Your task to perform on an android device: allow notifications from all sites in the chrome app Image 0: 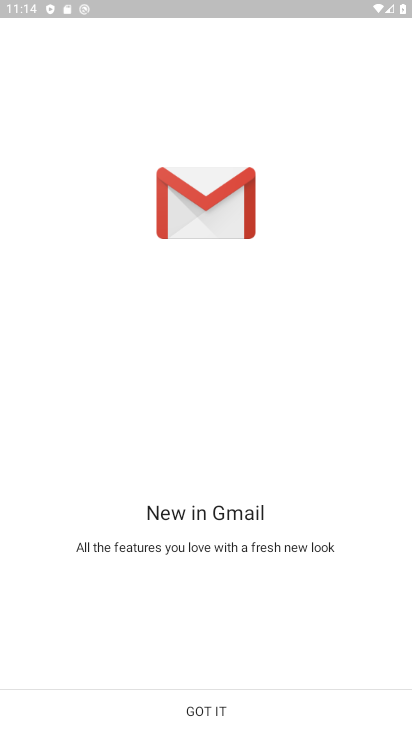
Step 0: click (230, 709)
Your task to perform on an android device: allow notifications from all sites in the chrome app Image 1: 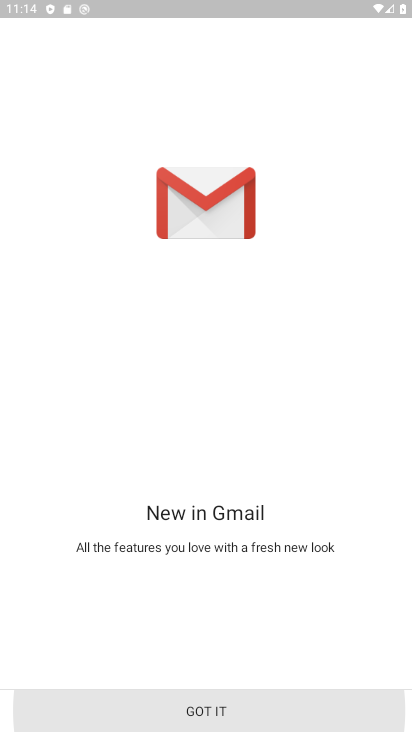
Step 1: click (230, 709)
Your task to perform on an android device: allow notifications from all sites in the chrome app Image 2: 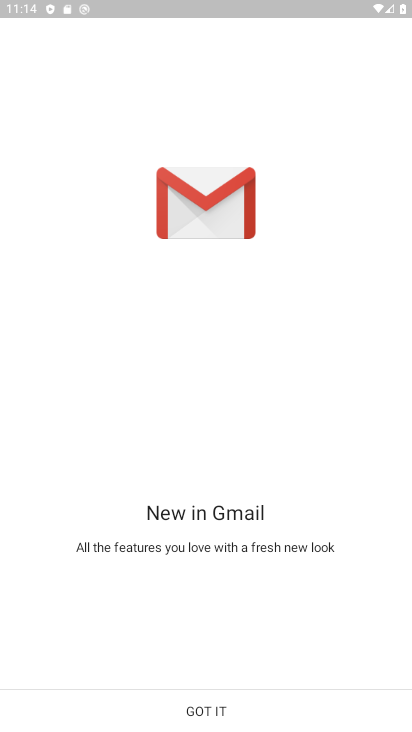
Step 2: click (242, 720)
Your task to perform on an android device: allow notifications from all sites in the chrome app Image 3: 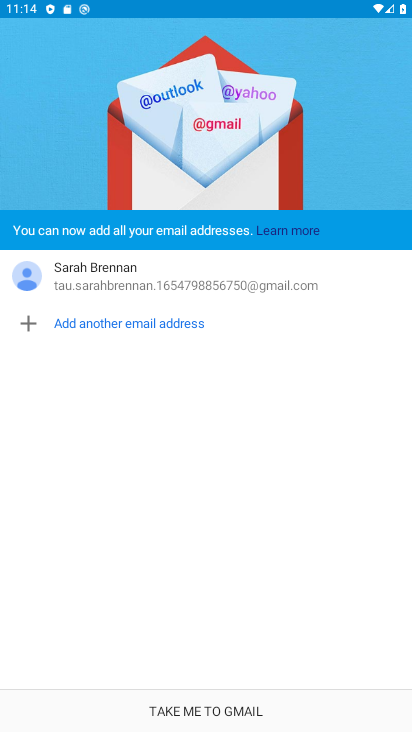
Step 3: click (194, 702)
Your task to perform on an android device: allow notifications from all sites in the chrome app Image 4: 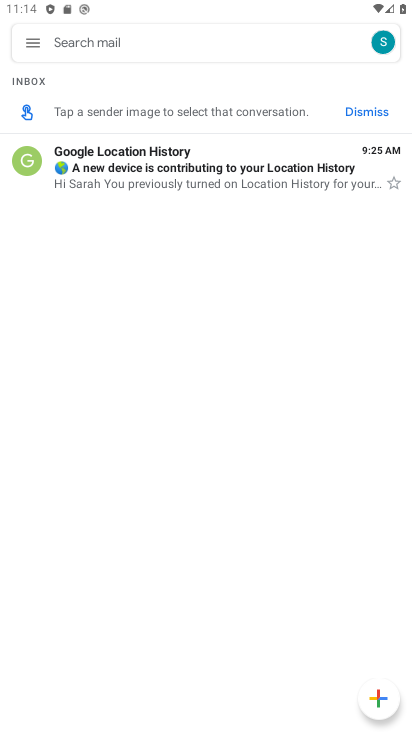
Step 4: press back button
Your task to perform on an android device: allow notifications from all sites in the chrome app Image 5: 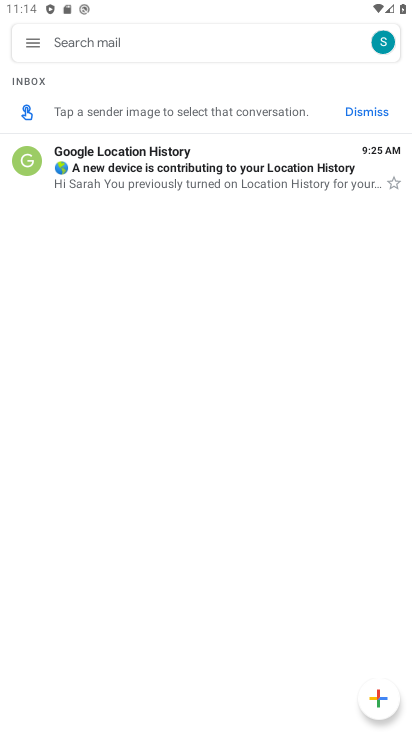
Step 5: press back button
Your task to perform on an android device: allow notifications from all sites in the chrome app Image 6: 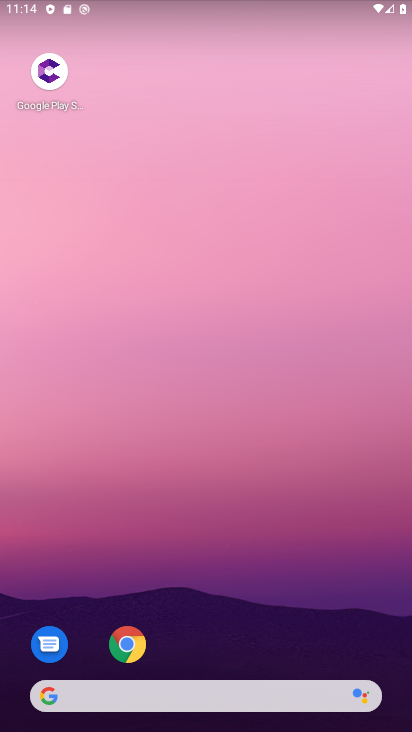
Step 6: drag from (249, 473) to (202, 127)
Your task to perform on an android device: allow notifications from all sites in the chrome app Image 7: 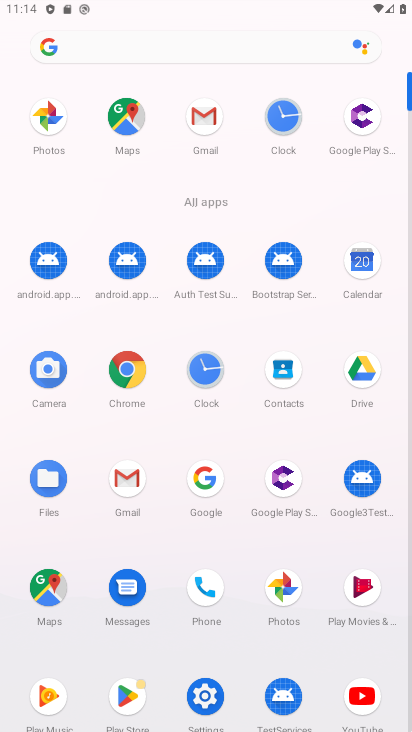
Step 7: click (123, 367)
Your task to perform on an android device: allow notifications from all sites in the chrome app Image 8: 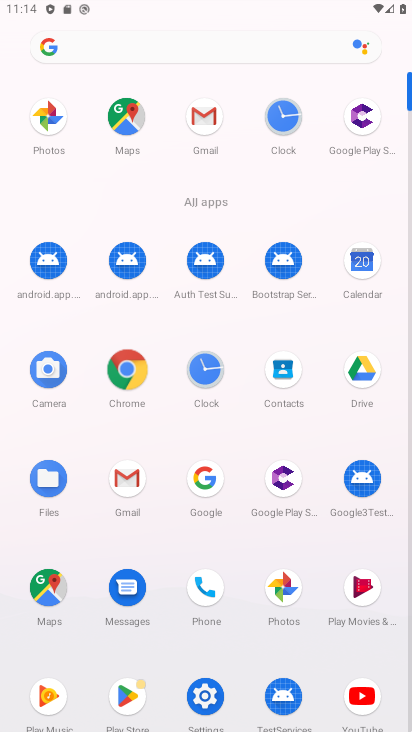
Step 8: click (121, 368)
Your task to perform on an android device: allow notifications from all sites in the chrome app Image 9: 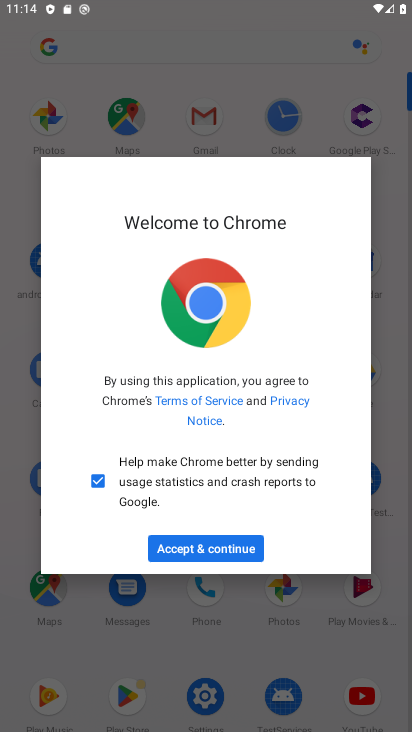
Step 9: click (205, 550)
Your task to perform on an android device: allow notifications from all sites in the chrome app Image 10: 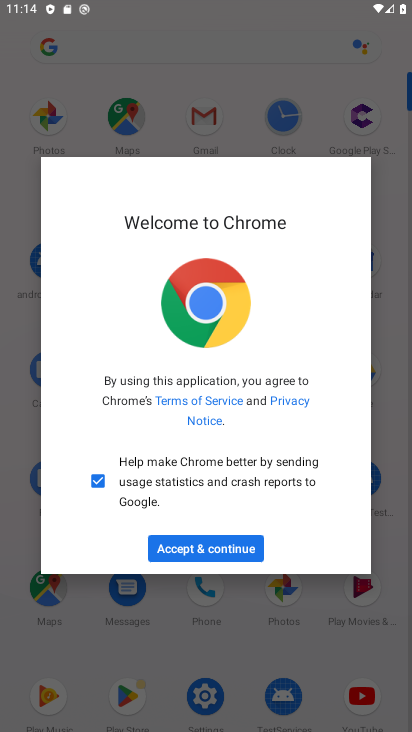
Step 10: click (206, 546)
Your task to perform on an android device: allow notifications from all sites in the chrome app Image 11: 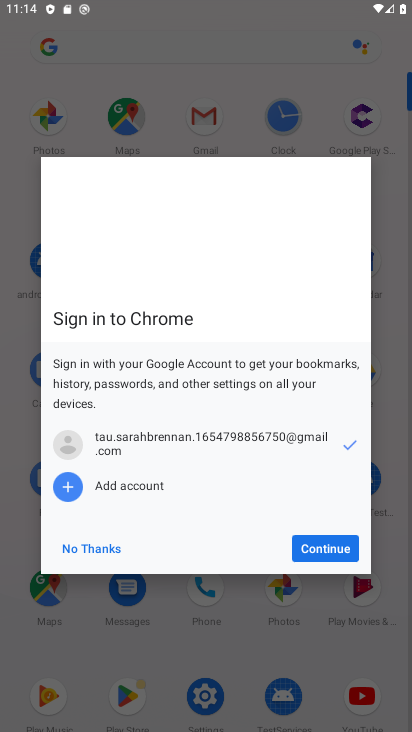
Step 11: click (108, 531)
Your task to perform on an android device: allow notifications from all sites in the chrome app Image 12: 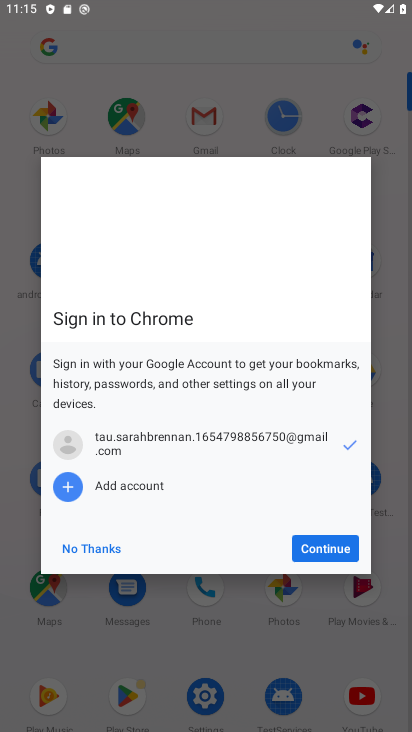
Step 12: click (108, 529)
Your task to perform on an android device: allow notifications from all sites in the chrome app Image 13: 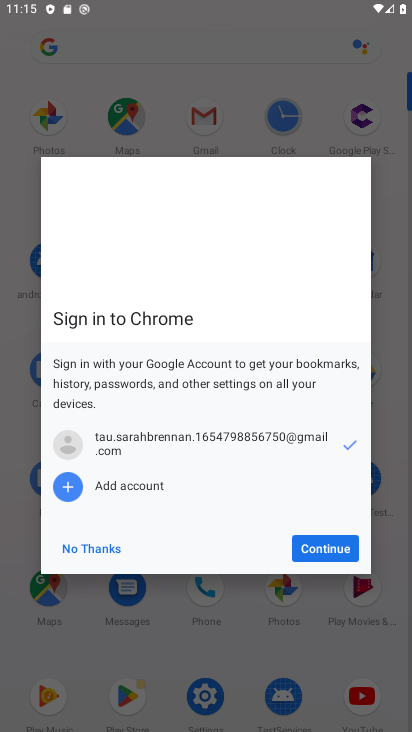
Step 13: click (88, 540)
Your task to perform on an android device: allow notifications from all sites in the chrome app Image 14: 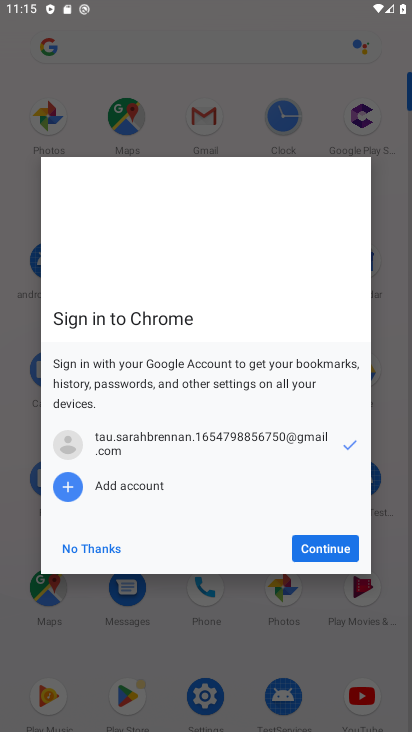
Step 14: click (86, 539)
Your task to perform on an android device: allow notifications from all sites in the chrome app Image 15: 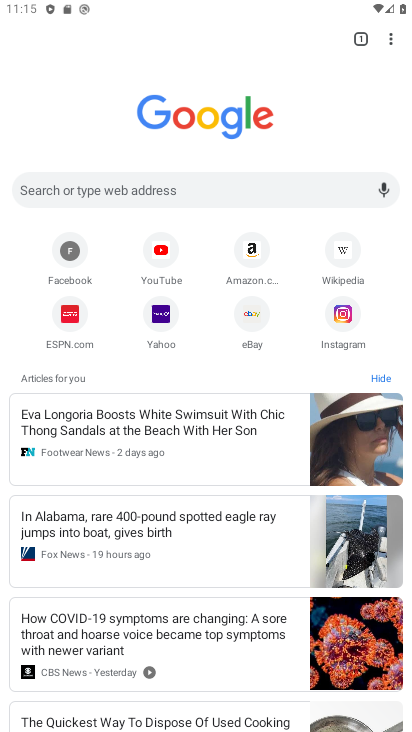
Step 15: drag from (391, 41) to (262, 337)
Your task to perform on an android device: allow notifications from all sites in the chrome app Image 16: 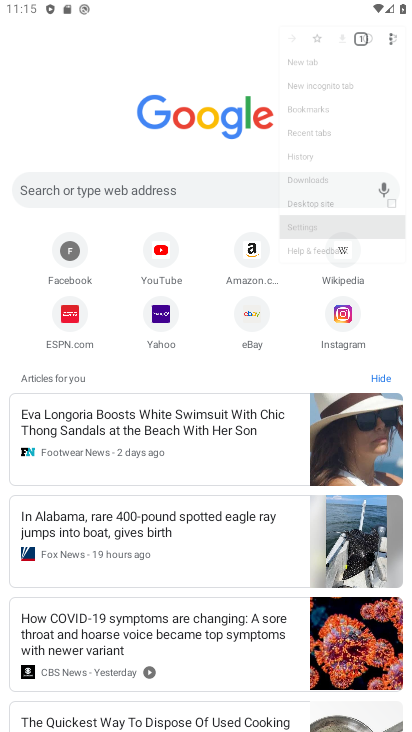
Step 16: click (267, 329)
Your task to perform on an android device: allow notifications from all sites in the chrome app Image 17: 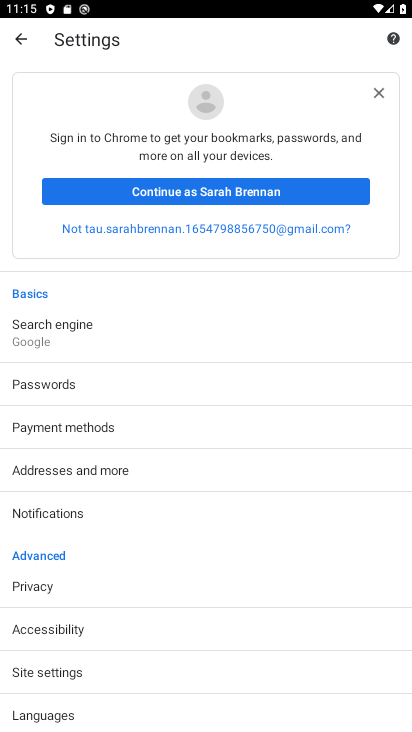
Step 17: click (43, 671)
Your task to perform on an android device: allow notifications from all sites in the chrome app Image 18: 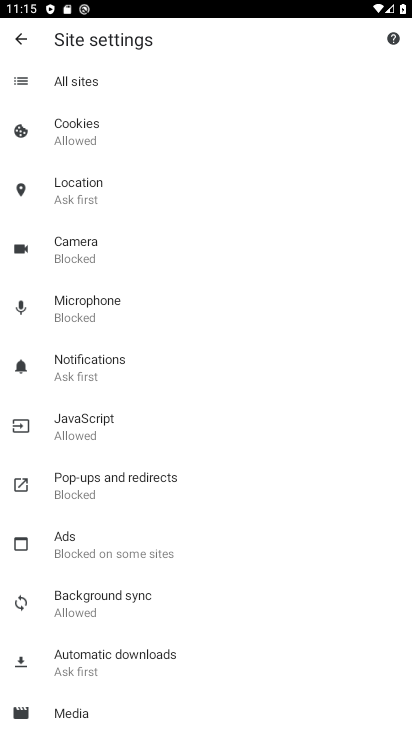
Step 18: click (79, 78)
Your task to perform on an android device: allow notifications from all sites in the chrome app Image 19: 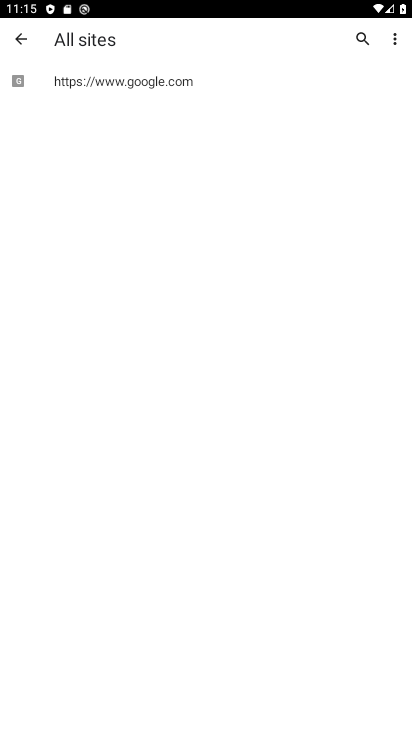
Step 19: click (177, 77)
Your task to perform on an android device: allow notifications from all sites in the chrome app Image 20: 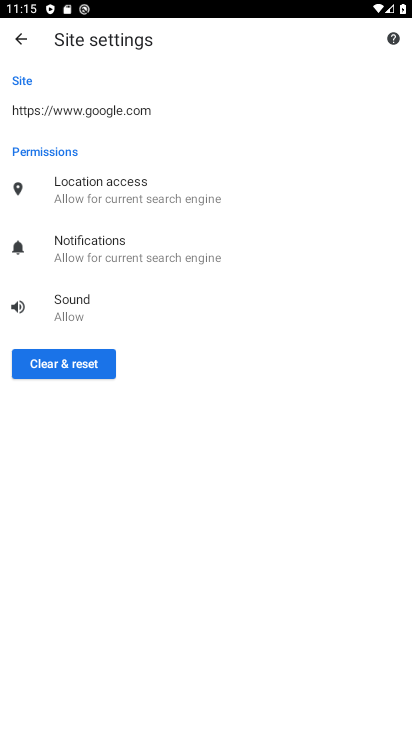
Step 20: click (80, 249)
Your task to perform on an android device: allow notifications from all sites in the chrome app Image 21: 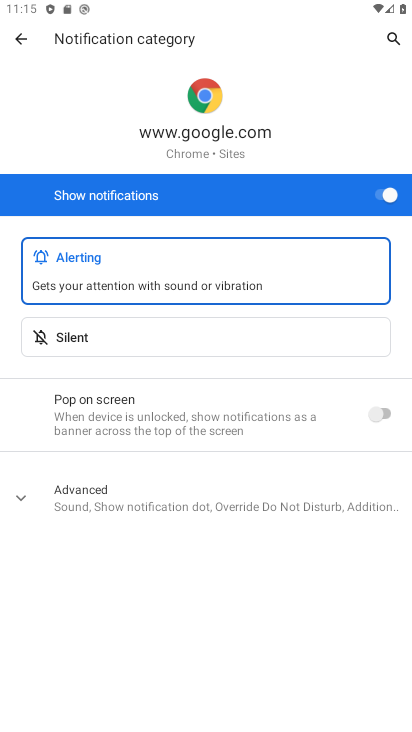
Step 21: task complete